Your task to perform on an android device: choose inbox layout in the gmail app Image 0: 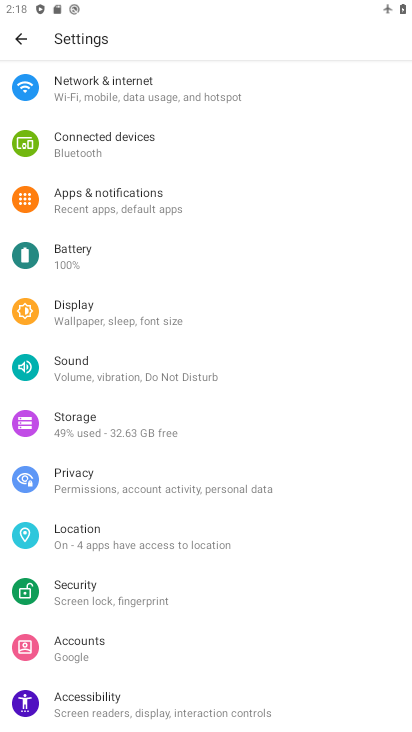
Step 0: press home button
Your task to perform on an android device: choose inbox layout in the gmail app Image 1: 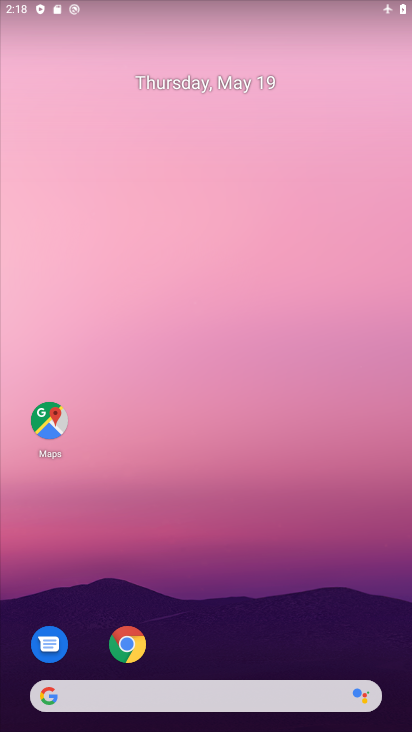
Step 1: drag from (231, 611) to (207, 293)
Your task to perform on an android device: choose inbox layout in the gmail app Image 2: 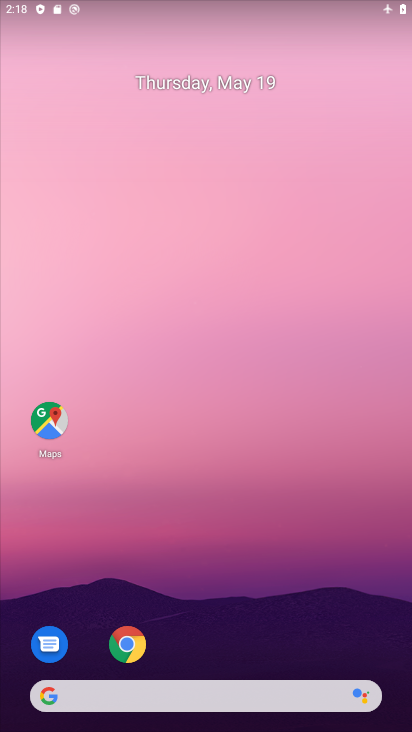
Step 2: drag from (248, 629) to (242, 325)
Your task to perform on an android device: choose inbox layout in the gmail app Image 3: 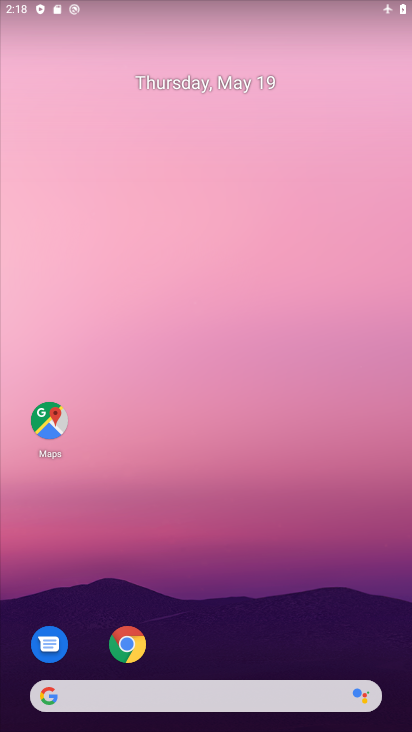
Step 3: drag from (286, 622) to (290, 268)
Your task to perform on an android device: choose inbox layout in the gmail app Image 4: 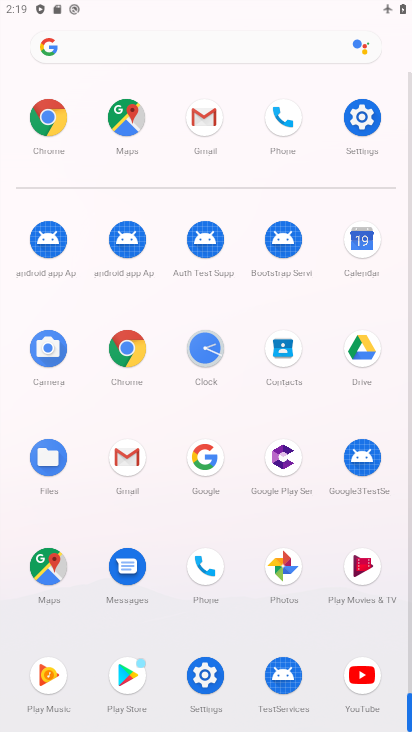
Step 4: click (133, 436)
Your task to perform on an android device: choose inbox layout in the gmail app Image 5: 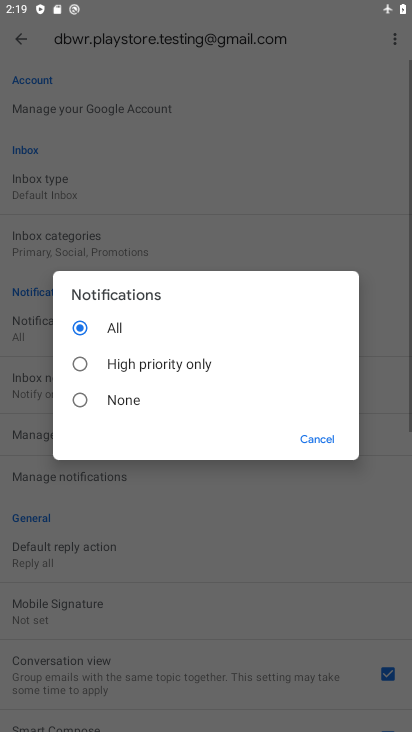
Step 5: click (299, 434)
Your task to perform on an android device: choose inbox layout in the gmail app Image 6: 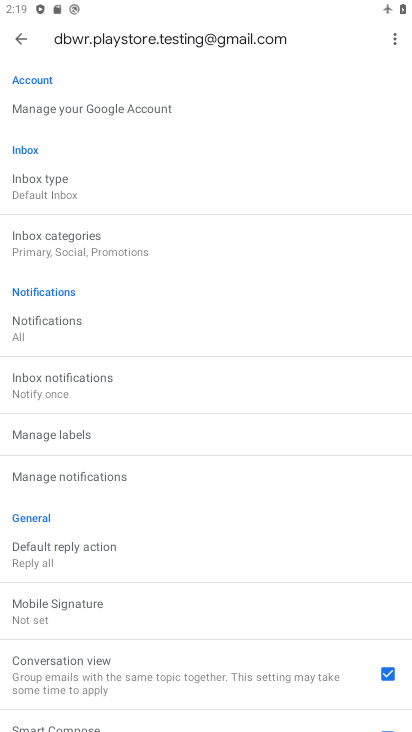
Step 6: click (51, 175)
Your task to perform on an android device: choose inbox layout in the gmail app Image 7: 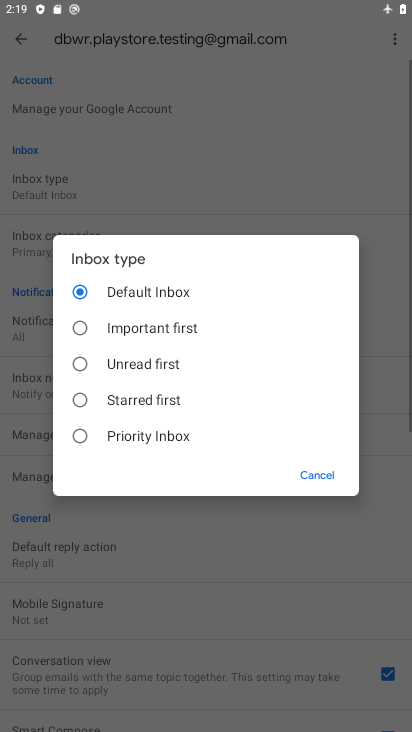
Step 7: click (136, 359)
Your task to perform on an android device: choose inbox layout in the gmail app Image 8: 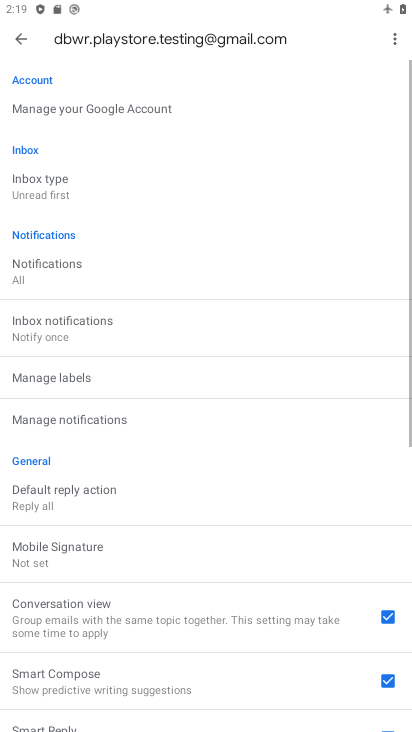
Step 8: task complete